Your task to perform on an android device: check google app version Image 0: 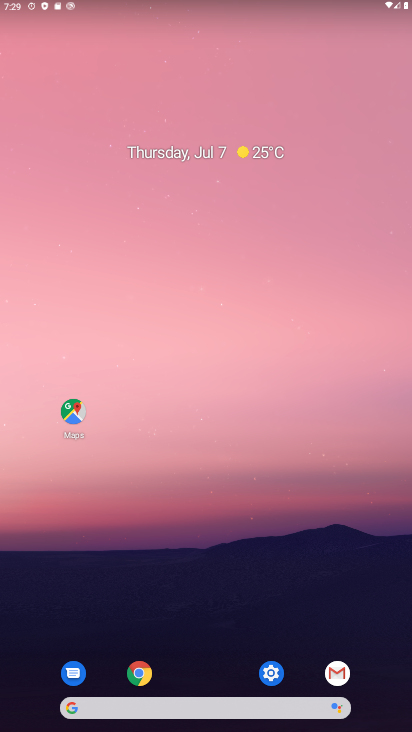
Step 0: click (155, 677)
Your task to perform on an android device: check google app version Image 1: 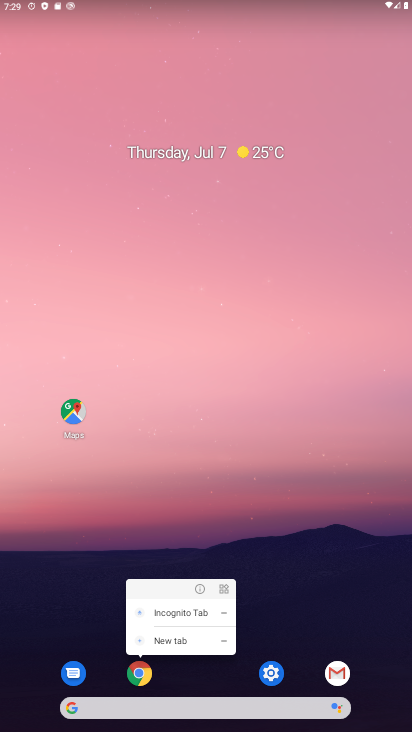
Step 1: click (155, 677)
Your task to perform on an android device: check google app version Image 2: 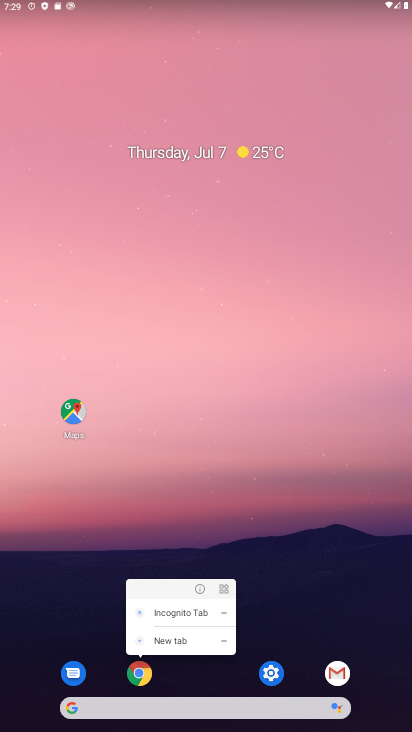
Step 2: click (145, 677)
Your task to perform on an android device: check google app version Image 3: 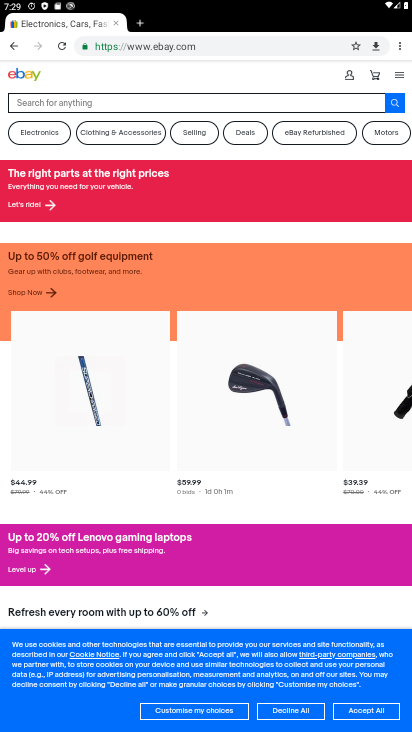
Step 3: click (402, 49)
Your task to perform on an android device: check google app version Image 4: 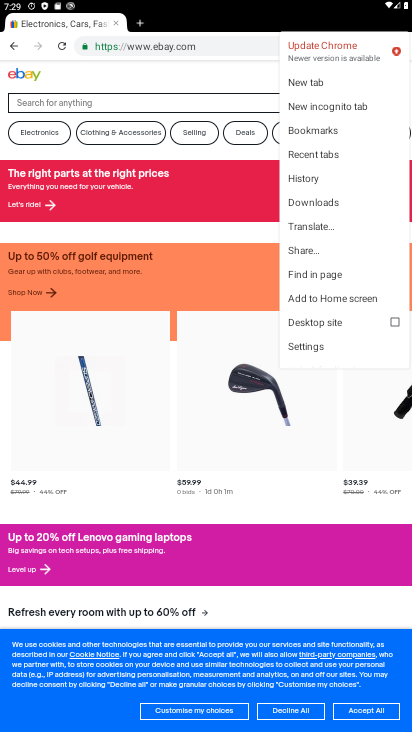
Step 4: click (321, 347)
Your task to perform on an android device: check google app version Image 5: 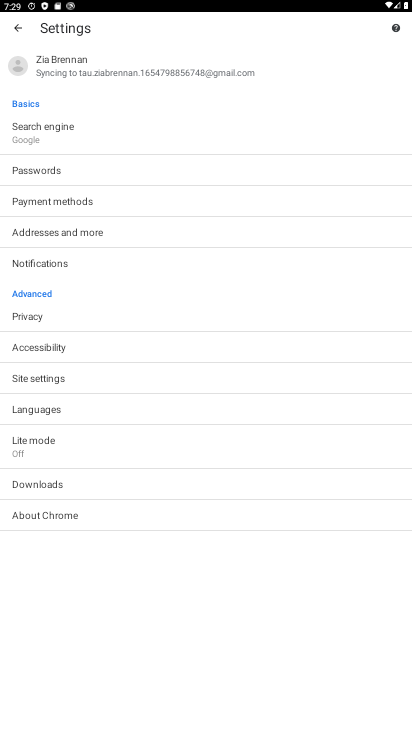
Step 5: click (97, 518)
Your task to perform on an android device: check google app version Image 6: 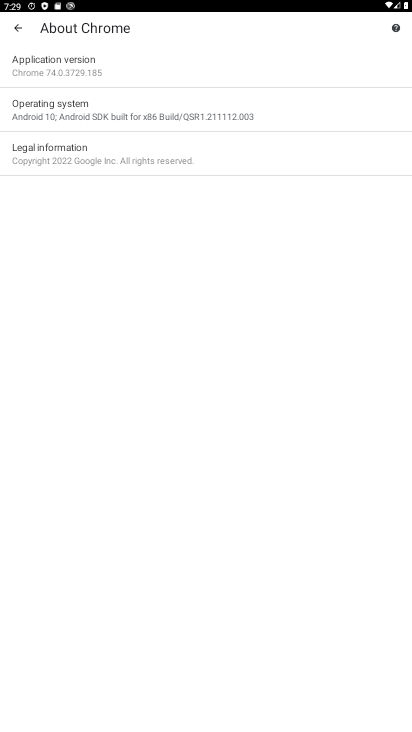
Step 6: click (80, 51)
Your task to perform on an android device: check google app version Image 7: 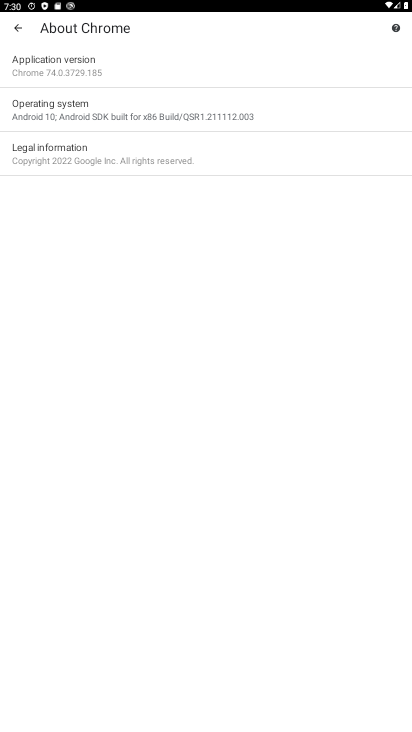
Step 7: task complete